Your task to perform on an android device: Check the weather Image 0: 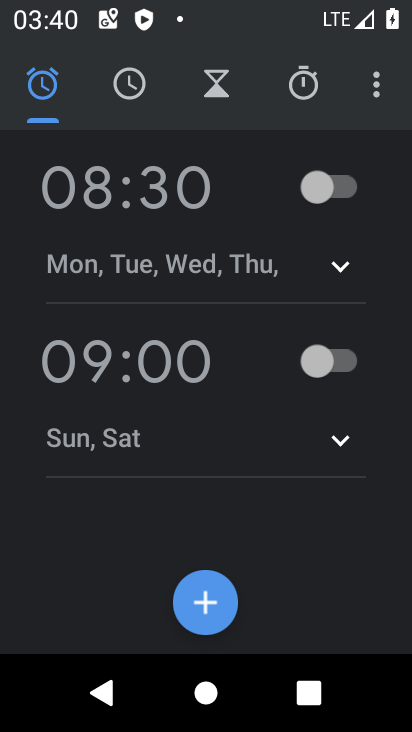
Step 0: press home button
Your task to perform on an android device: Check the weather Image 1: 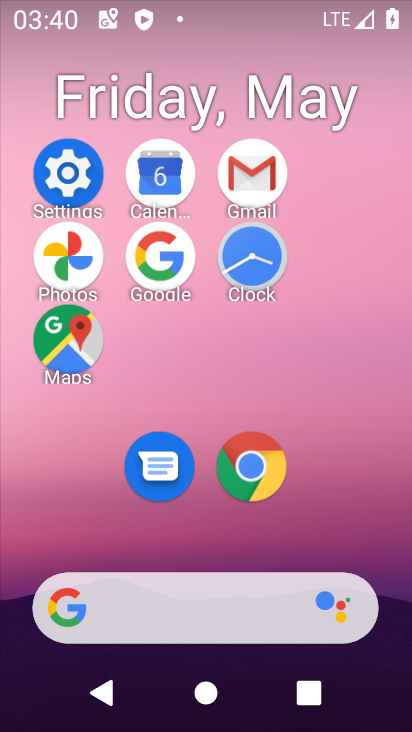
Step 1: click (167, 275)
Your task to perform on an android device: Check the weather Image 2: 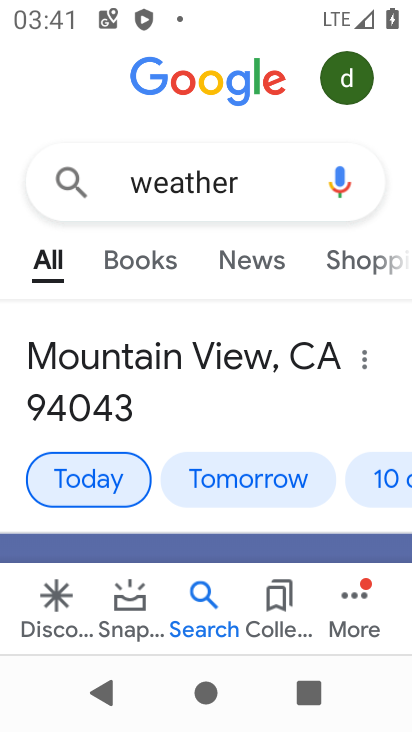
Step 2: task complete